Your task to perform on an android device: turn off priority inbox in the gmail app Image 0: 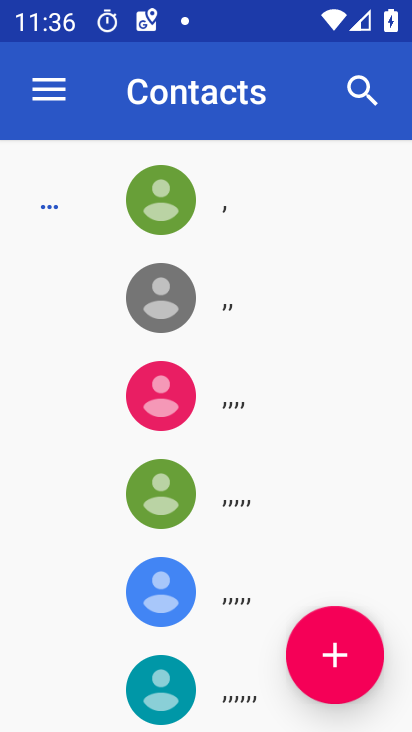
Step 0: press home button
Your task to perform on an android device: turn off priority inbox in the gmail app Image 1: 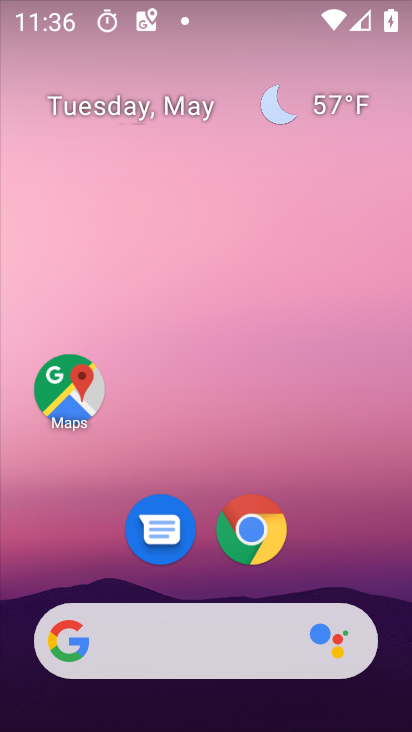
Step 1: drag from (203, 568) to (230, 84)
Your task to perform on an android device: turn off priority inbox in the gmail app Image 2: 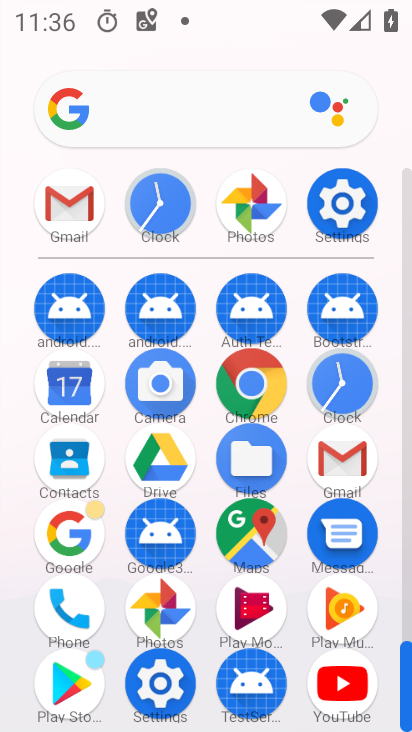
Step 2: click (350, 462)
Your task to perform on an android device: turn off priority inbox in the gmail app Image 3: 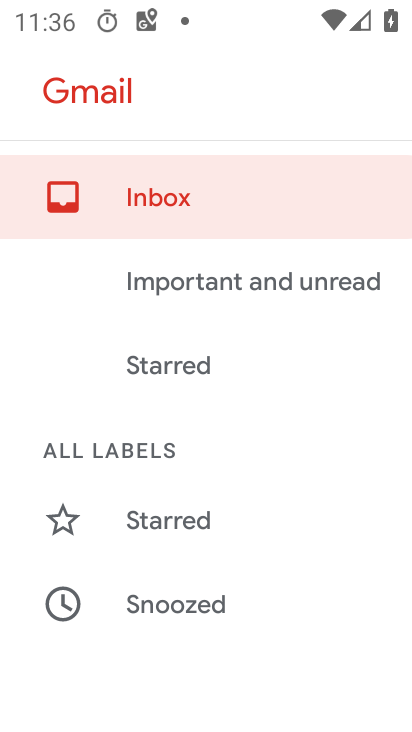
Step 3: drag from (350, 462) to (311, 212)
Your task to perform on an android device: turn off priority inbox in the gmail app Image 4: 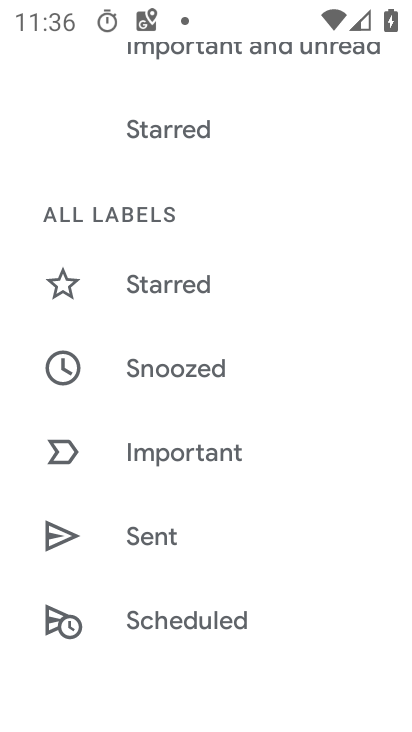
Step 4: drag from (79, 604) to (194, 132)
Your task to perform on an android device: turn off priority inbox in the gmail app Image 5: 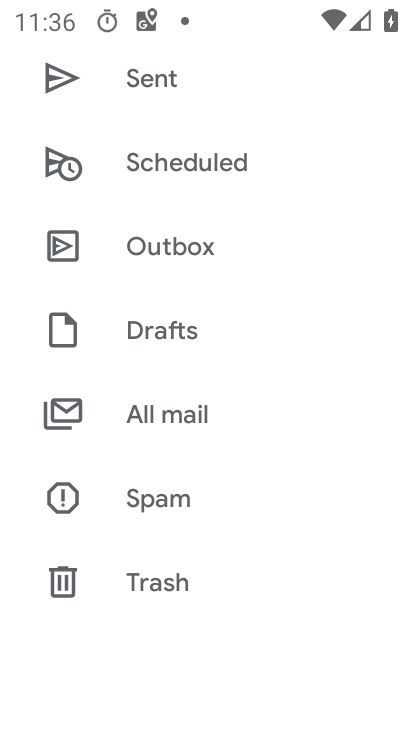
Step 5: drag from (110, 529) to (173, 192)
Your task to perform on an android device: turn off priority inbox in the gmail app Image 6: 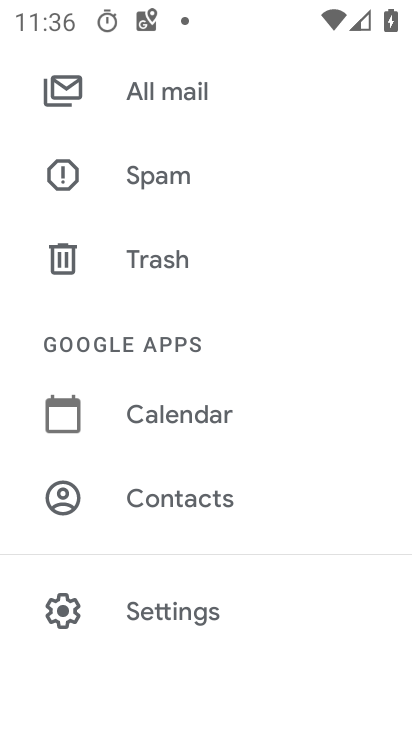
Step 6: click (229, 613)
Your task to perform on an android device: turn off priority inbox in the gmail app Image 7: 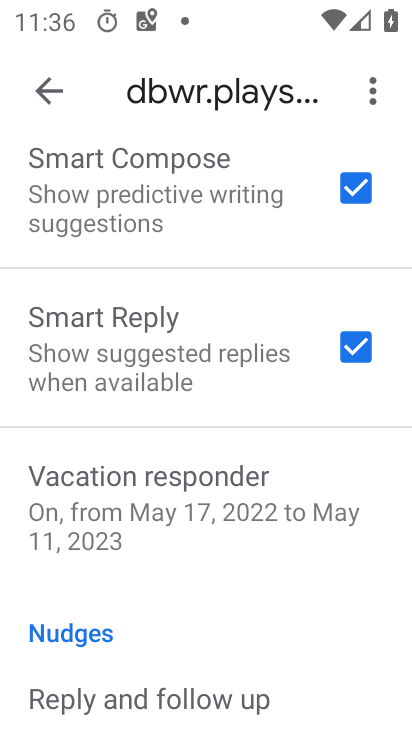
Step 7: drag from (229, 613) to (211, 120)
Your task to perform on an android device: turn off priority inbox in the gmail app Image 8: 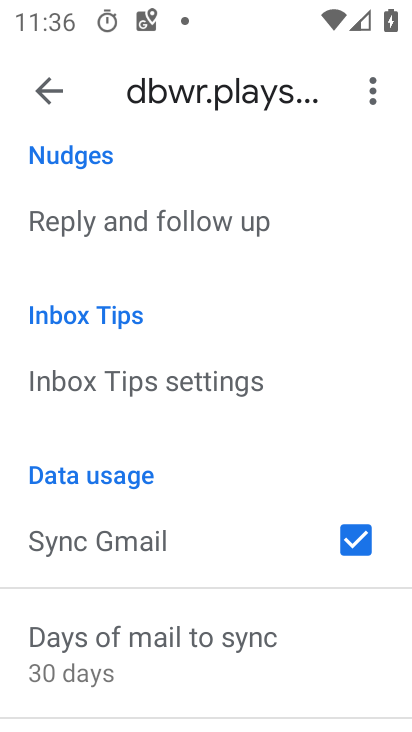
Step 8: drag from (285, 354) to (227, 672)
Your task to perform on an android device: turn off priority inbox in the gmail app Image 9: 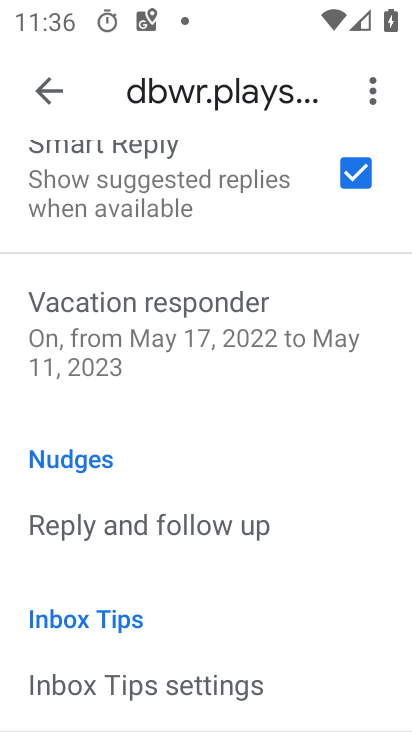
Step 9: drag from (190, 301) to (227, 623)
Your task to perform on an android device: turn off priority inbox in the gmail app Image 10: 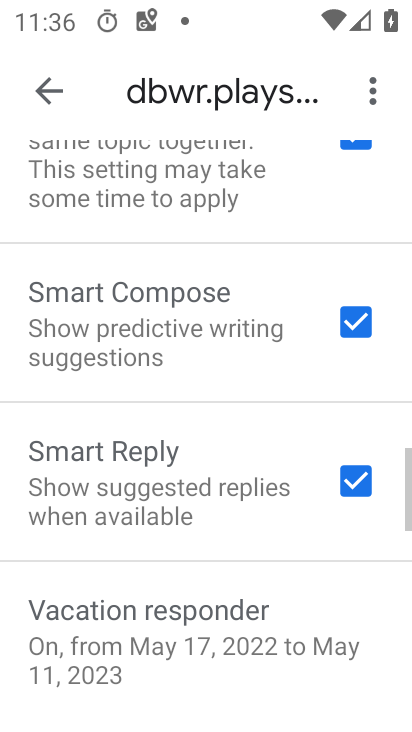
Step 10: drag from (227, 623) to (211, 483)
Your task to perform on an android device: turn off priority inbox in the gmail app Image 11: 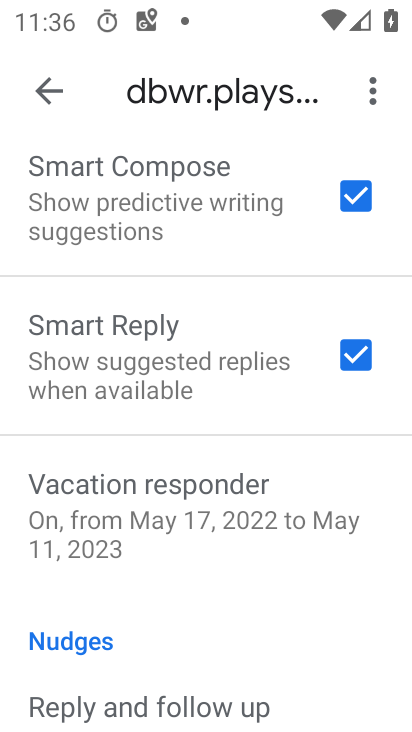
Step 11: drag from (183, 212) to (178, 635)
Your task to perform on an android device: turn off priority inbox in the gmail app Image 12: 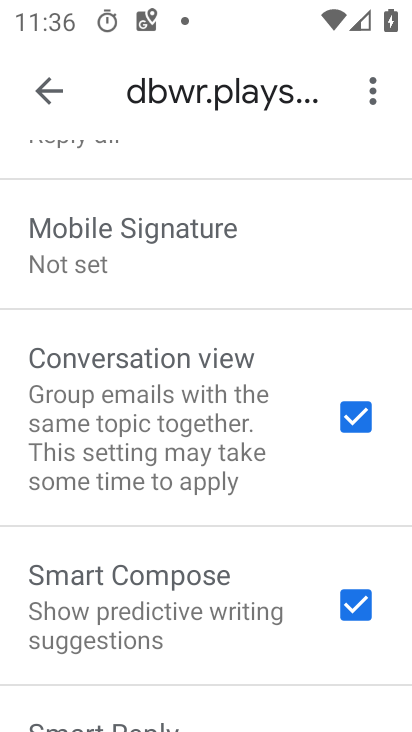
Step 12: drag from (174, 284) to (222, 668)
Your task to perform on an android device: turn off priority inbox in the gmail app Image 13: 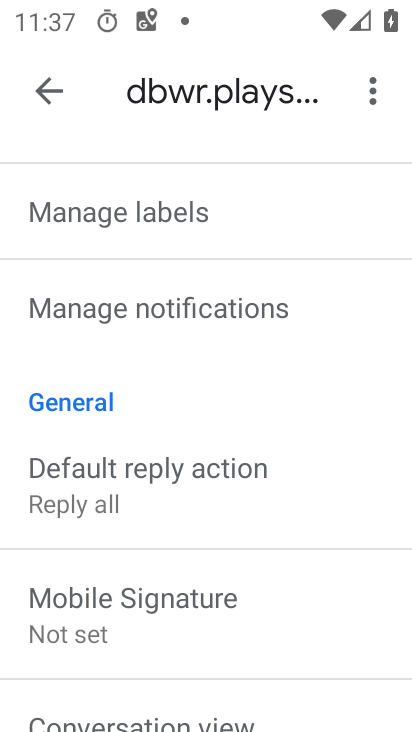
Step 13: drag from (228, 630) to (255, 203)
Your task to perform on an android device: turn off priority inbox in the gmail app Image 14: 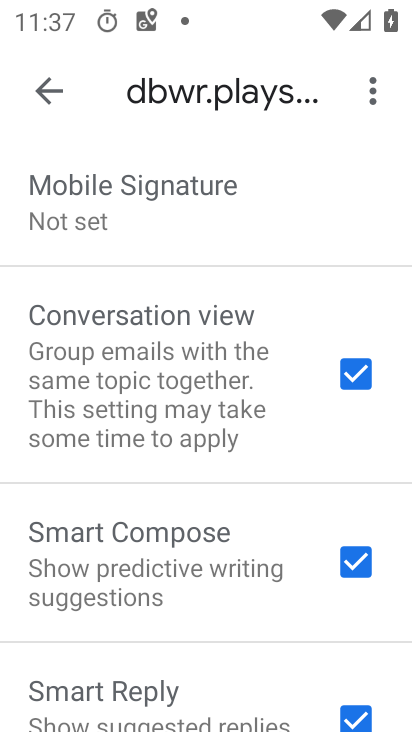
Step 14: drag from (196, 702) to (280, 333)
Your task to perform on an android device: turn off priority inbox in the gmail app Image 15: 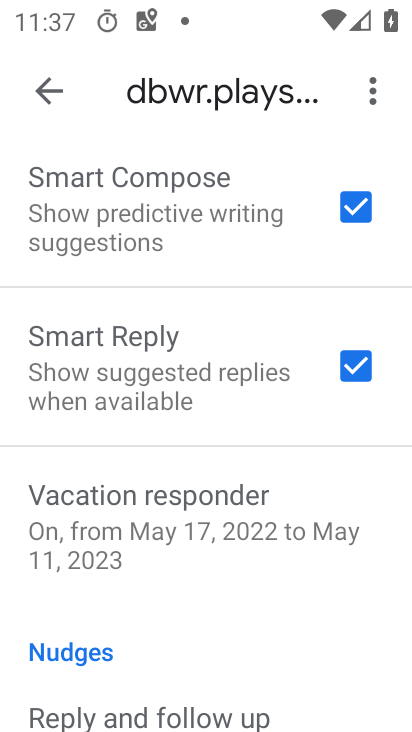
Step 15: drag from (280, 333) to (231, 659)
Your task to perform on an android device: turn off priority inbox in the gmail app Image 16: 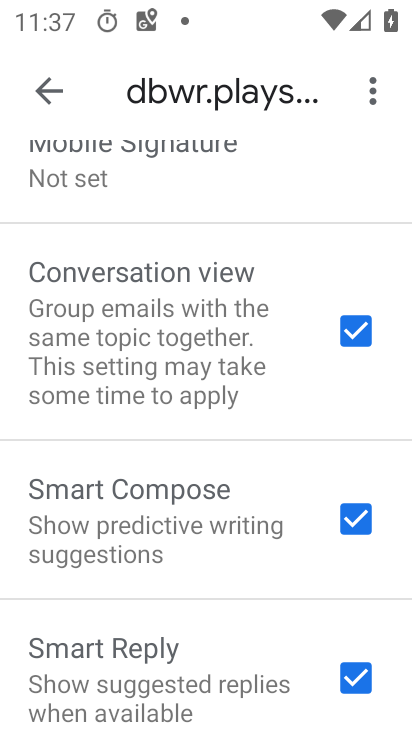
Step 16: drag from (207, 228) to (285, 618)
Your task to perform on an android device: turn off priority inbox in the gmail app Image 17: 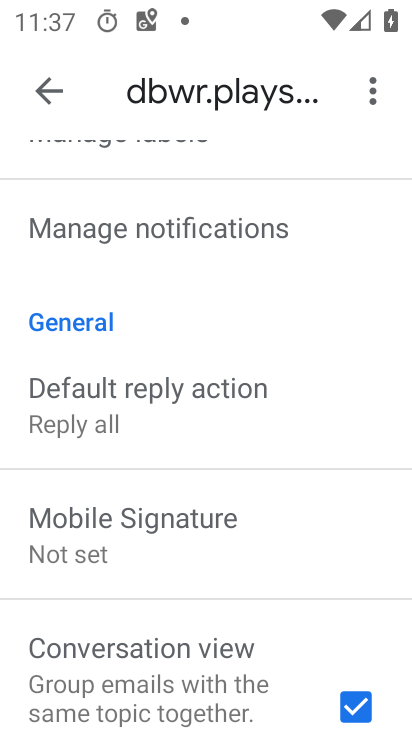
Step 17: drag from (235, 280) to (202, 592)
Your task to perform on an android device: turn off priority inbox in the gmail app Image 18: 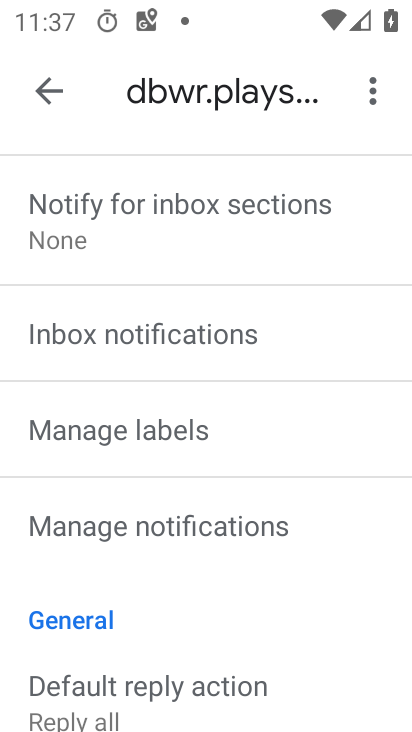
Step 18: drag from (205, 266) to (246, 556)
Your task to perform on an android device: turn off priority inbox in the gmail app Image 19: 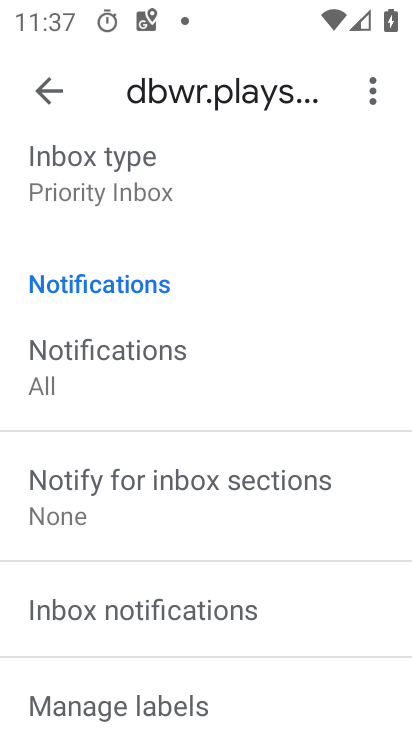
Step 19: click (166, 184)
Your task to perform on an android device: turn off priority inbox in the gmail app Image 20: 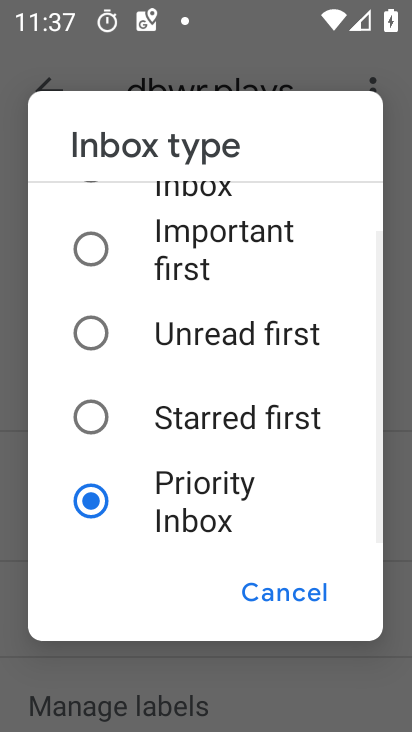
Step 20: click (192, 428)
Your task to perform on an android device: turn off priority inbox in the gmail app Image 21: 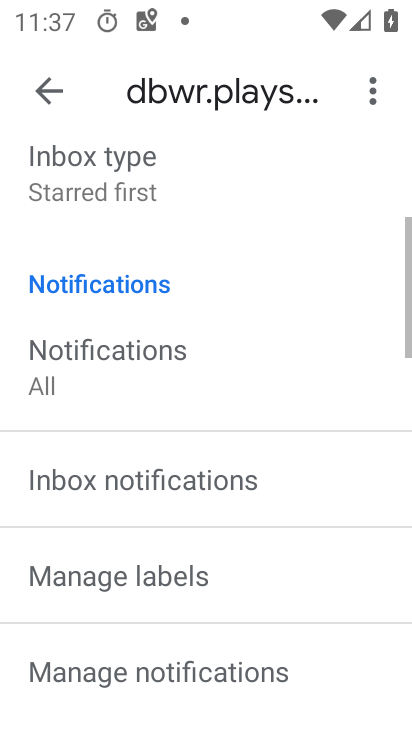
Step 21: task complete